Your task to perform on an android device: change your default location settings in chrome Image 0: 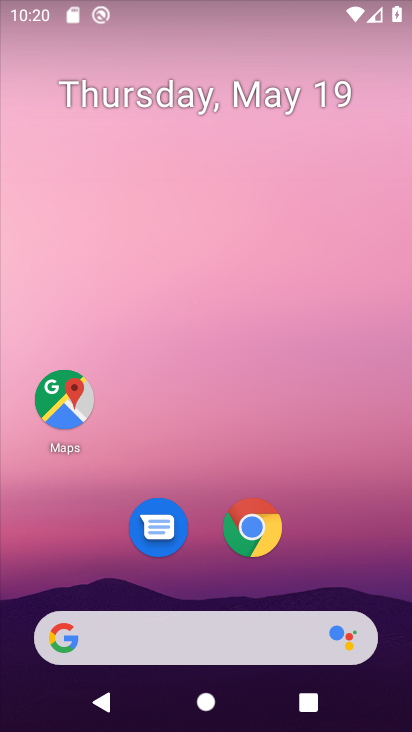
Step 0: drag from (383, 586) to (308, 100)
Your task to perform on an android device: change your default location settings in chrome Image 1: 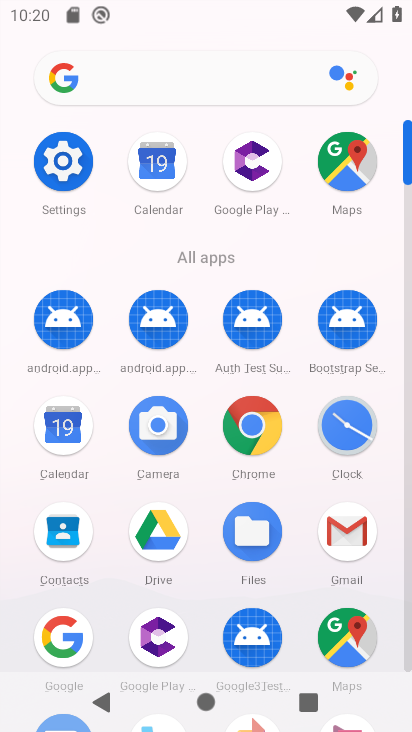
Step 1: click (70, 160)
Your task to perform on an android device: change your default location settings in chrome Image 2: 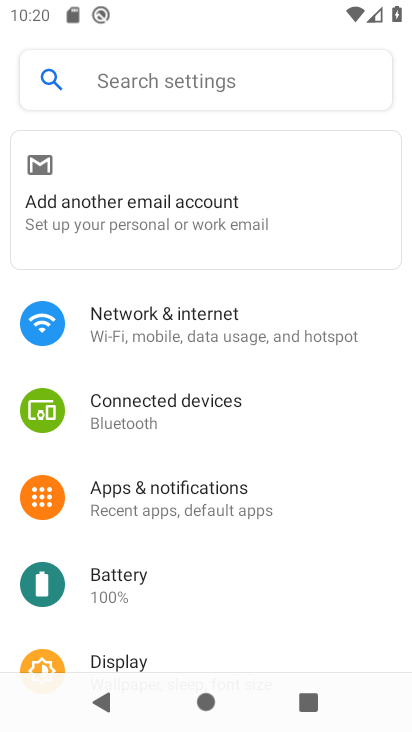
Step 2: press home button
Your task to perform on an android device: change your default location settings in chrome Image 3: 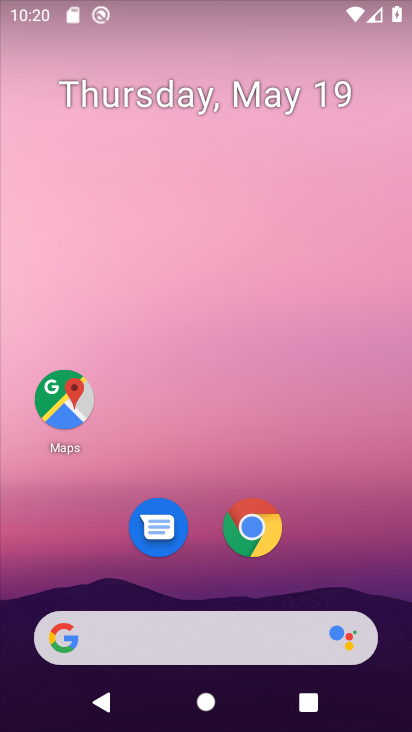
Step 3: click (259, 532)
Your task to perform on an android device: change your default location settings in chrome Image 4: 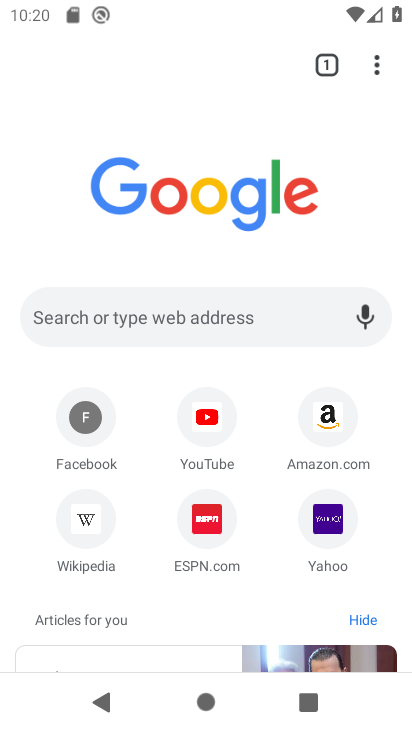
Step 4: click (383, 77)
Your task to perform on an android device: change your default location settings in chrome Image 5: 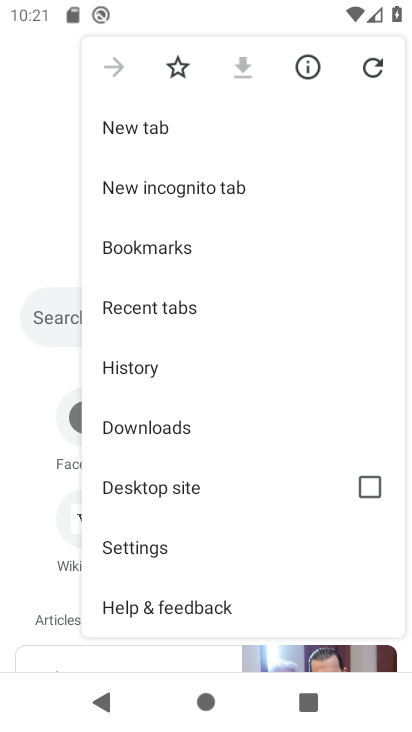
Step 5: click (247, 555)
Your task to perform on an android device: change your default location settings in chrome Image 6: 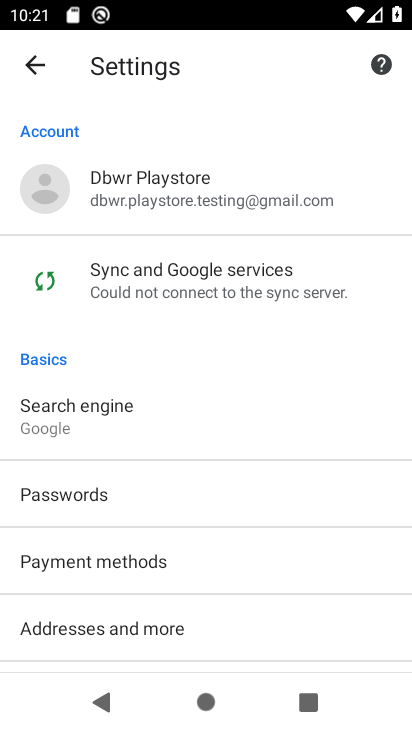
Step 6: drag from (286, 644) to (248, 133)
Your task to perform on an android device: change your default location settings in chrome Image 7: 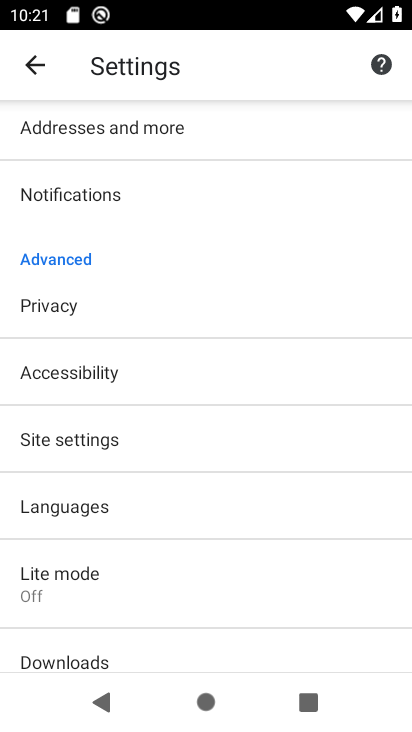
Step 7: click (261, 439)
Your task to perform on an android device: change your default location settings in chrome Image 8: 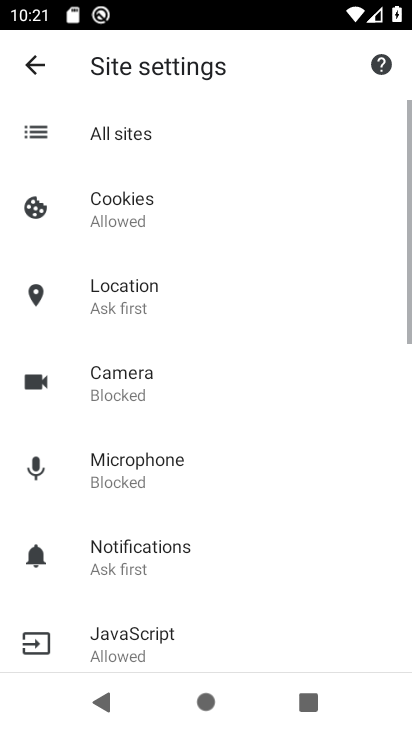
Step 8: click (225, 318)
Your task to perform on an android device: change your default location settings in chrome Image 9: 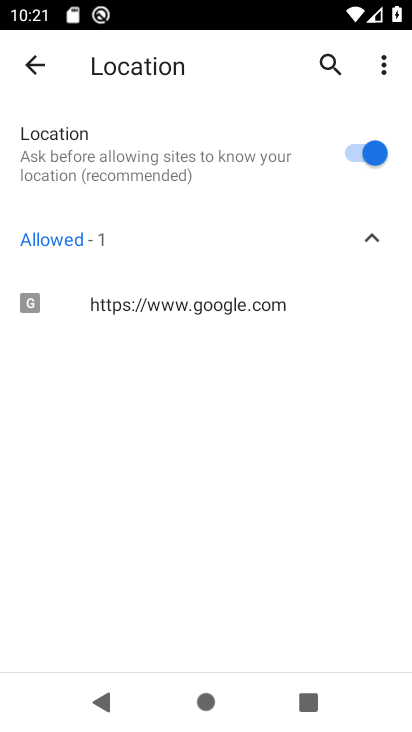
Step 9: task complete